Your task to perform on an android device: check the backup settings in the google photos Image 0: 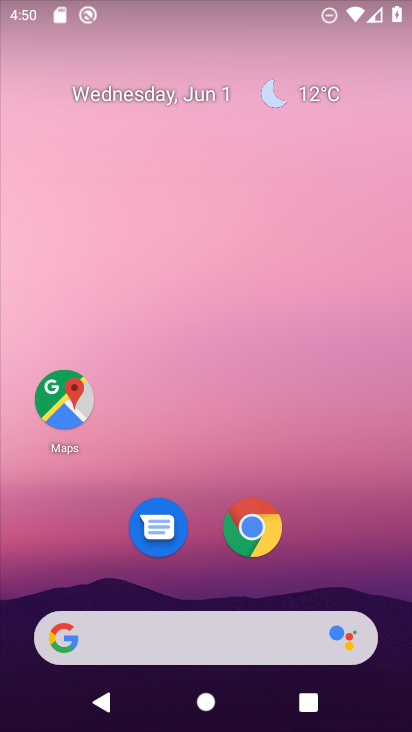
Step 0: drag from (193, 577) to (221, 39)
Your task to perform on an android device: check the backup settings in the google photos Image 1: 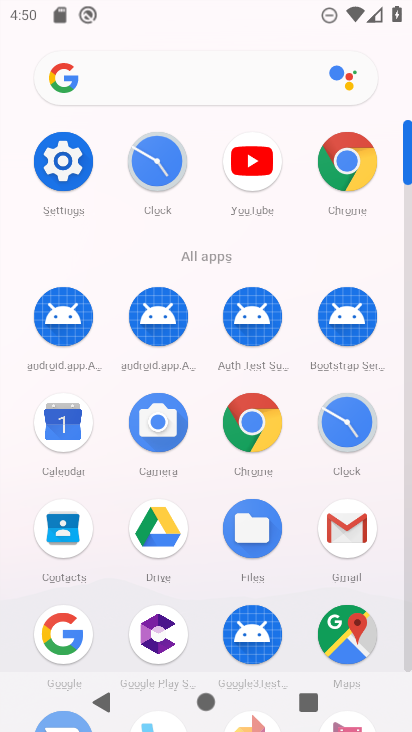
Step 1: drag from (107, 639) to (194, 63)
Your task to perform on an android device: check the backup settings in the google photos Image 2: 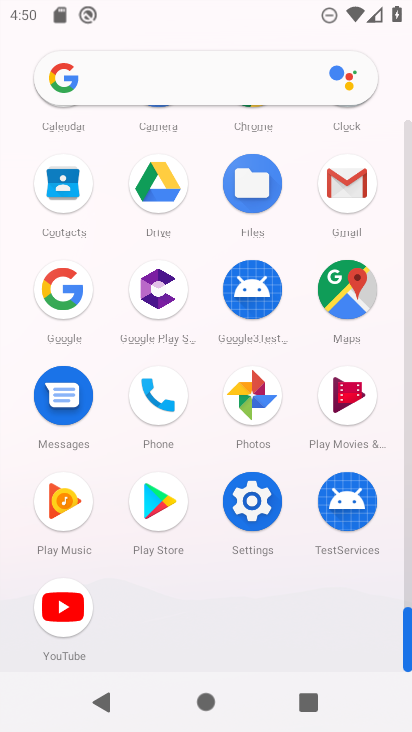
Step 2: click (260, 405)
Your task to perform on an android device: check the backup settings in the google photos Image 3: 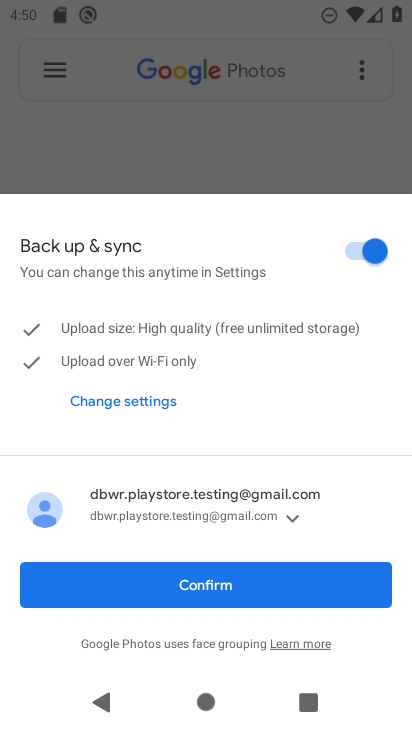
Step 3: click (136, 396)
Your task to perform on an android device: check the backup settings in the google photos Image 4: 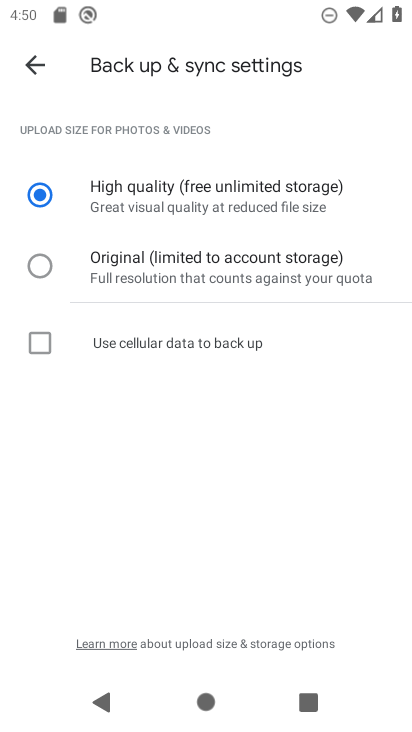
Step 4: task complete